Your task to perform on an android device: toggle notifications settings in the gmail app Image 0: 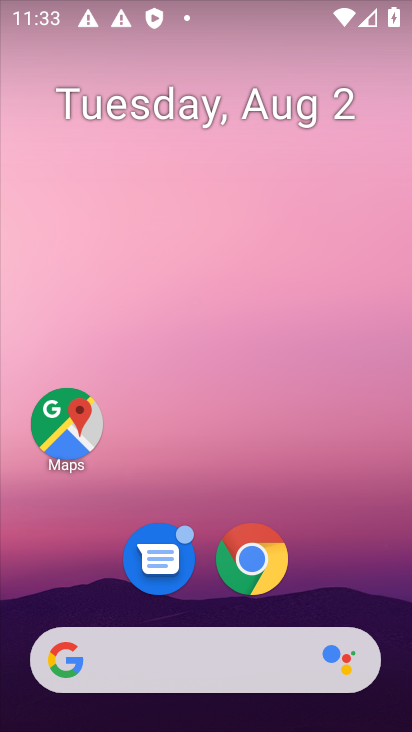
Step 0: drag from (196, 558) to (190, 153)
Your task to perform on an android device: toggle notifications settings in the gmail app Image 1: 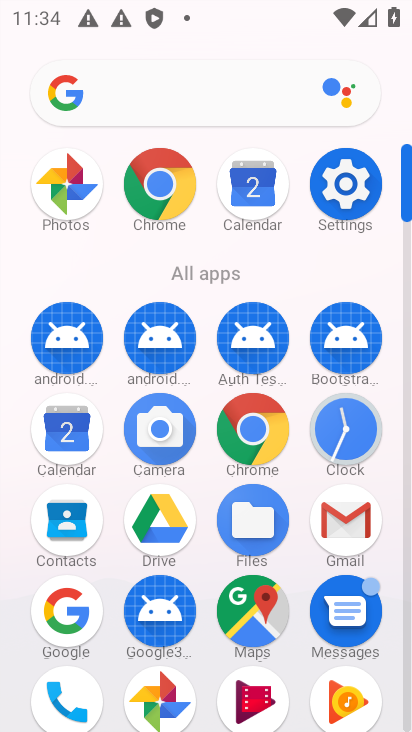
Step 1: click (343, 520)
Your task to perform on an android device: toggle notifications settings in the gmail app Image 2: 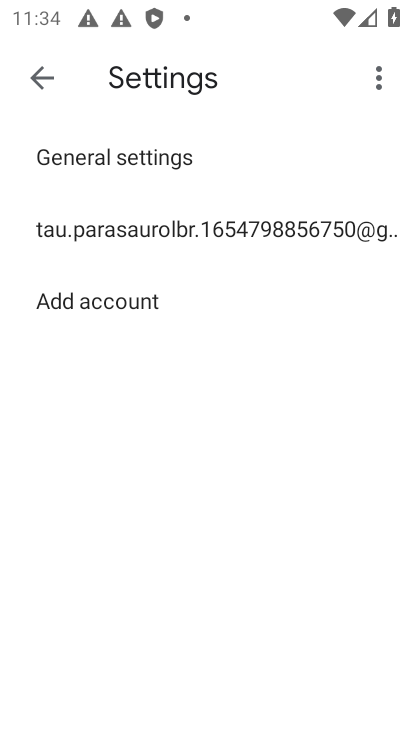
Step 2: click (116, 230)
Your task to perform on an android device: toggle notifications settings in the gmail app Image 3: 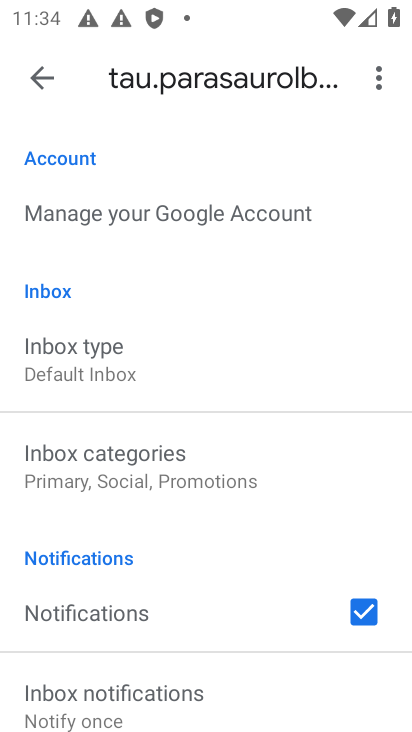
Step 3: click (369, 612)
Your task to perform on an android device: toggle notifications settings in the gmail app Image 4: 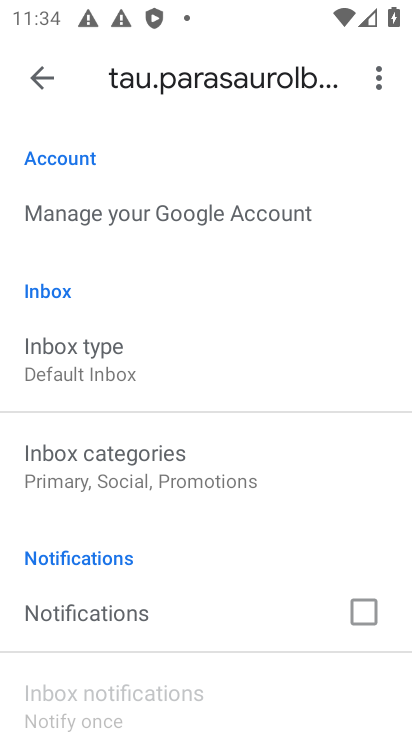
Step 4: task complete